Your task to perform on an android device: install app "Pluto TV - Live TV and Movies" Image 0: 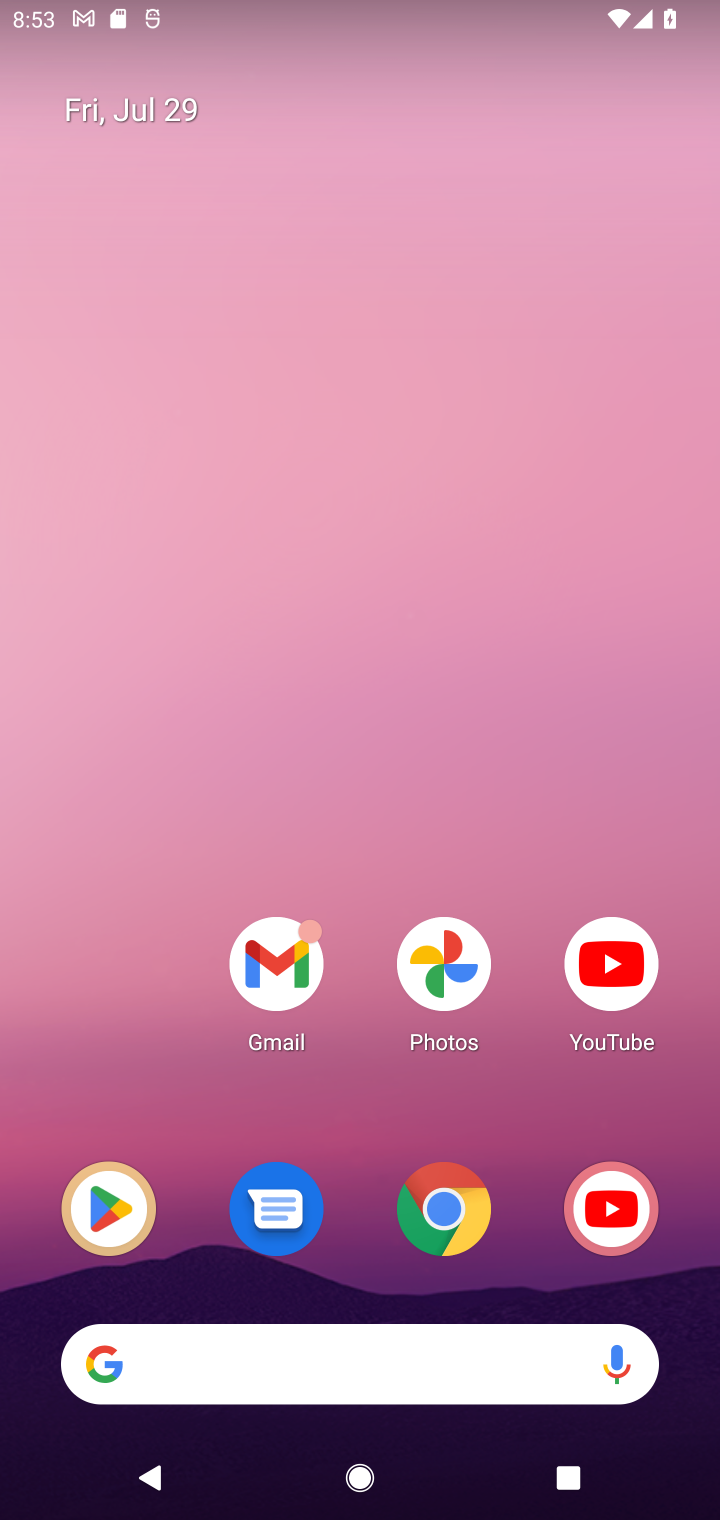
Step 0: drag from (213, 1347) to (419, 13)
Your task to perform on an android device: install app "Pluto TV - Live TV and Movies" Image 1: 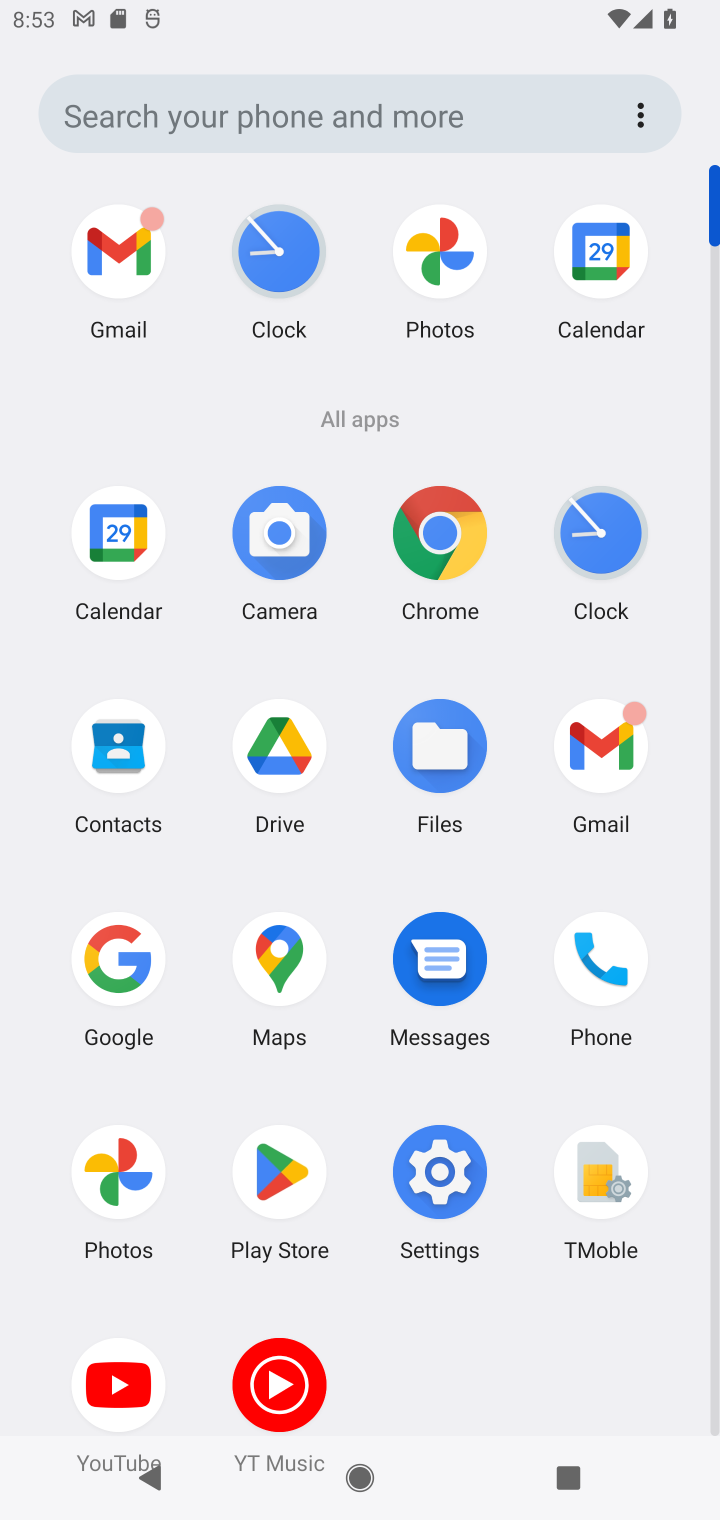
Step 1: click (286, 1179)
Your task to perform on an android device: install app "Pluto TV - Live TV and Movies" Image 2: 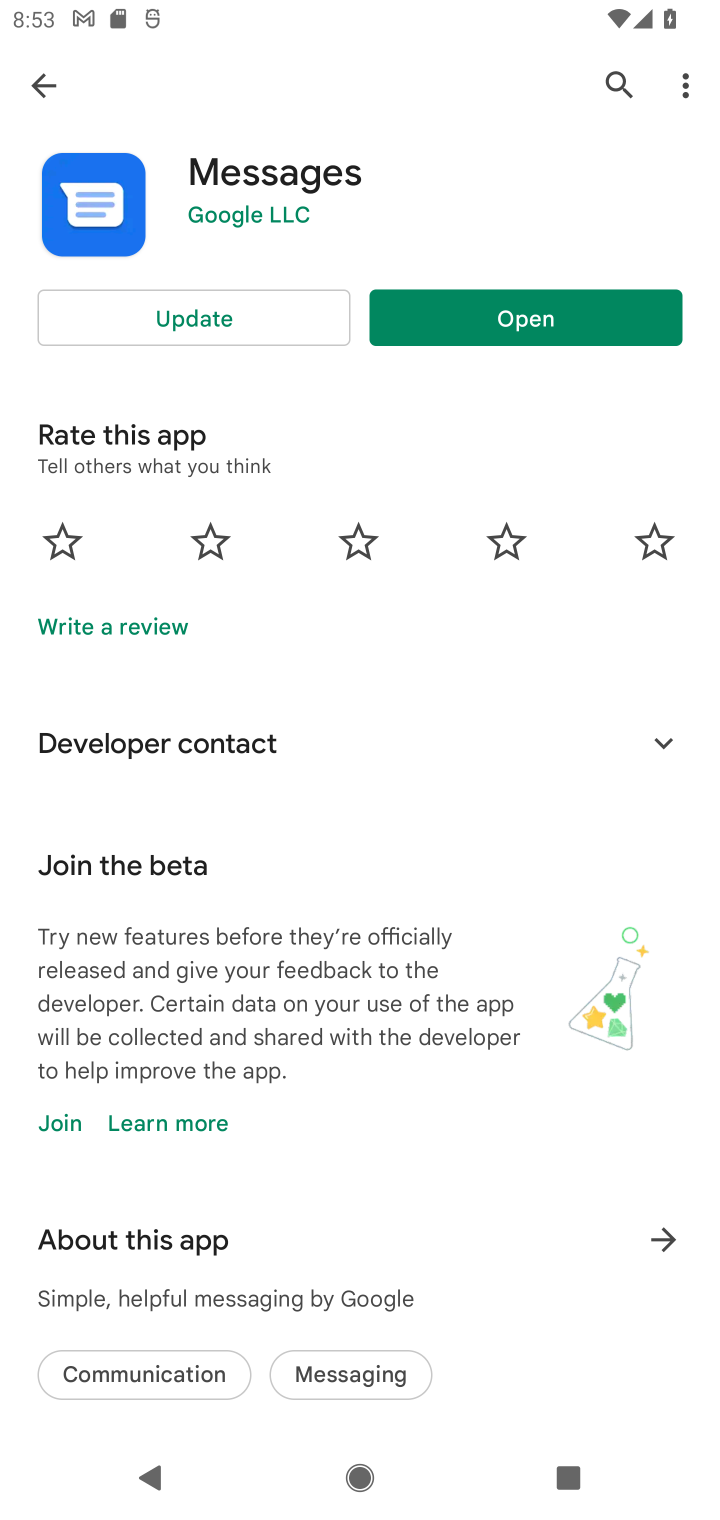
Step 2: click (617, 88)
Your task to perform on an android device: install app "Pluto TV - Live TV and Movies" Image 3: 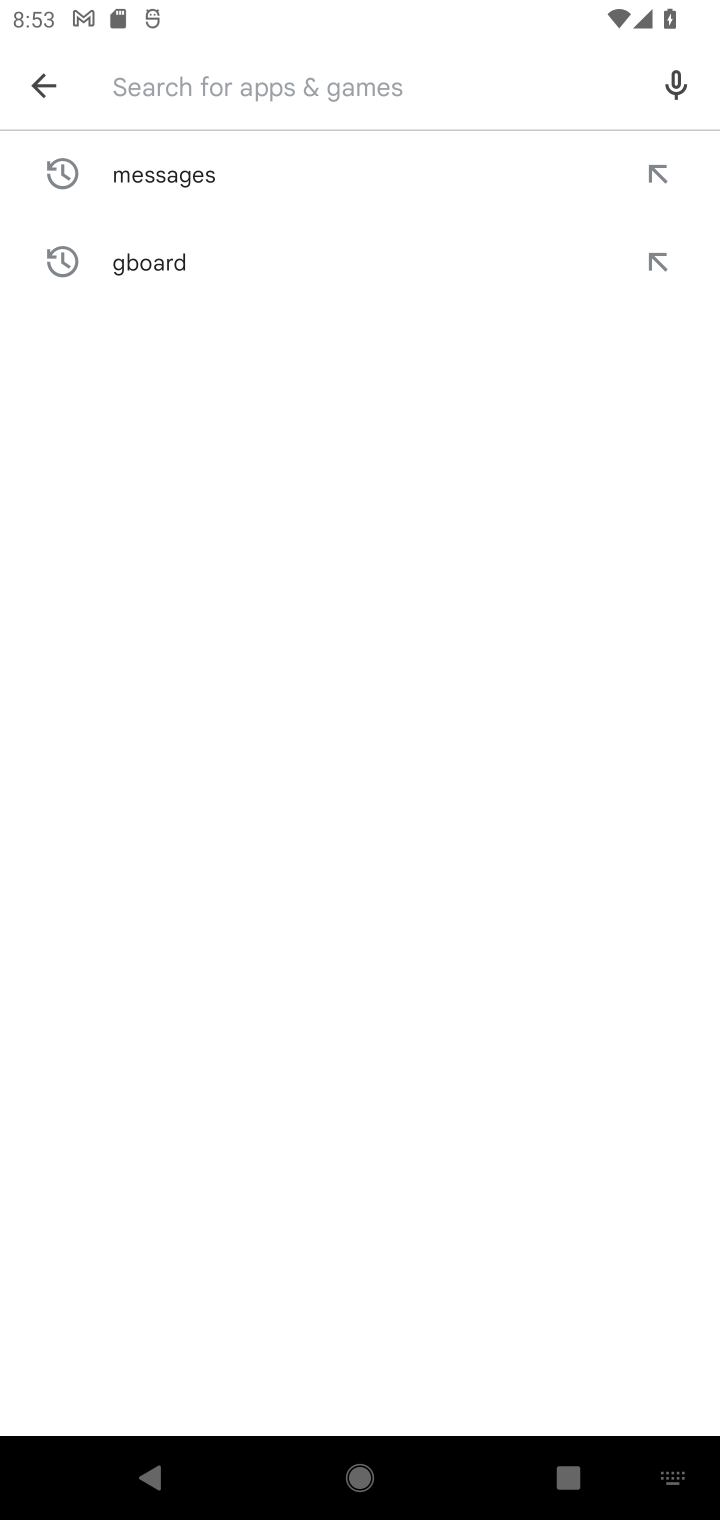
Step 3: click (283, 99)
Your task to perform on an android device: install app "Pluto TV - Live TV and Movies" Image 4: 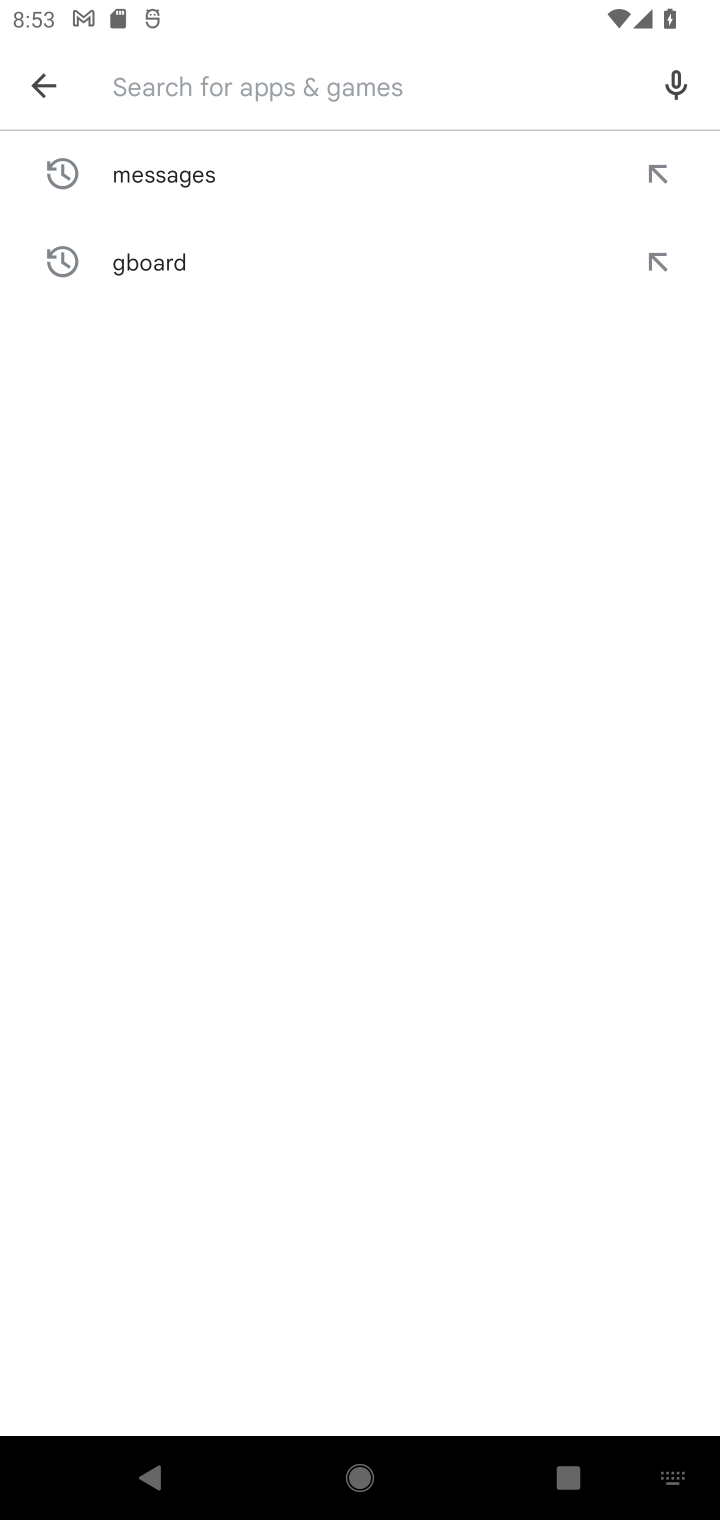
Step 4: click (145, 84)
Your task to perform on an android device: install app "Pluto TV - Live TV and Movies" Image 5: 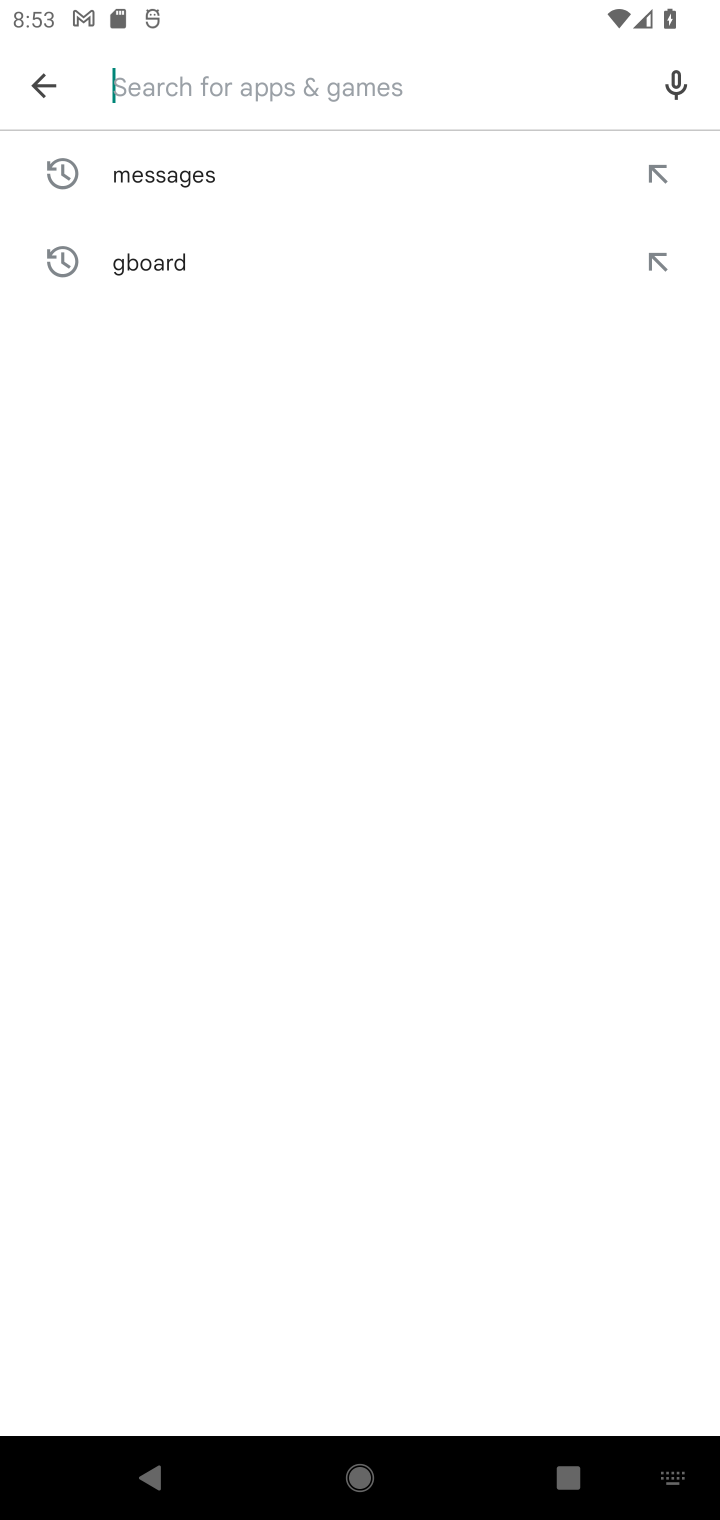
Step 5: type "Pluto TV - Live TV and Movies"
Your task to perform on an android device: install app "Pluto TV - Live TV and Movies" Image 6: 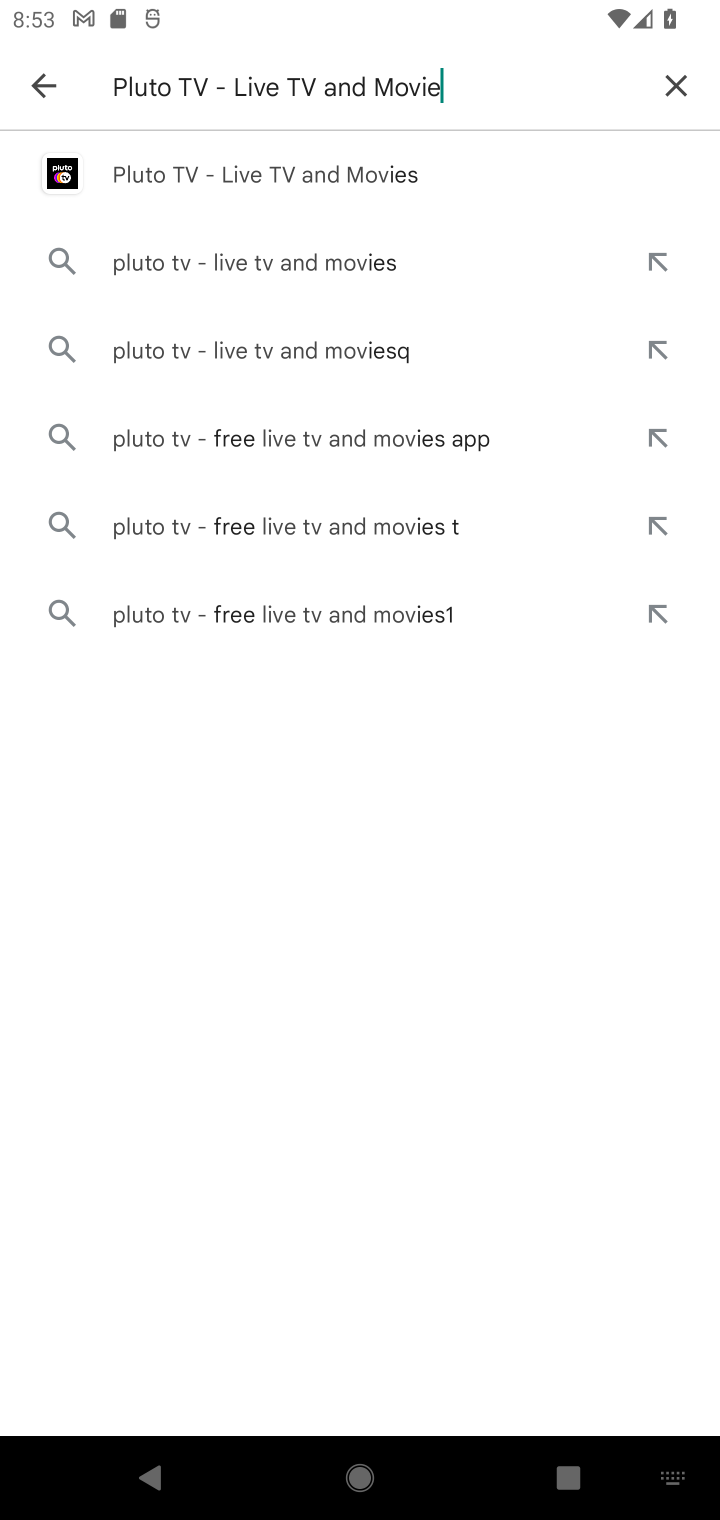
Step 6: type ""
Your task to perform on an android device: install app "Pluto TV - Live TV and Movies" Image 7: 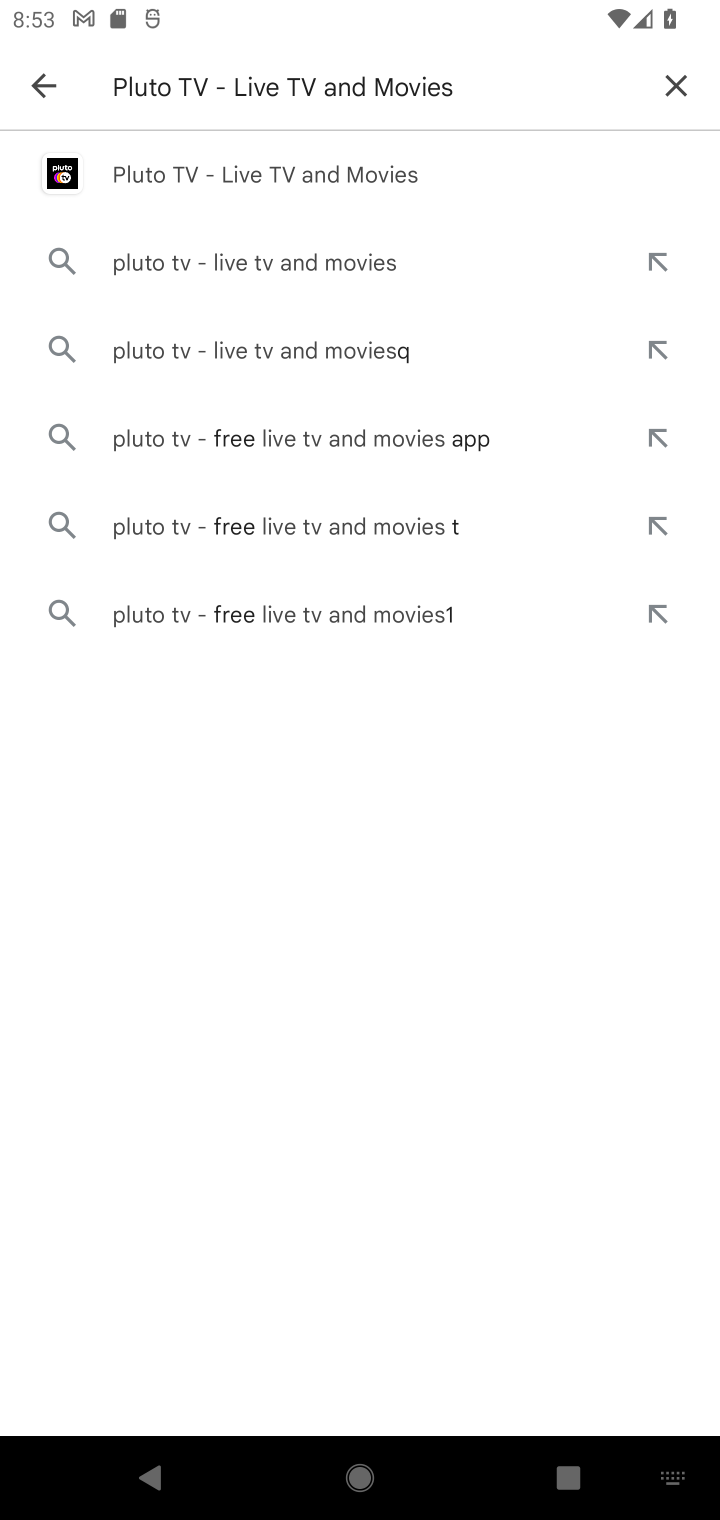
Step 7: click (343, 171)
Your task to perform on an android device: install app "Pluto TV - Live TV and Movies" Image 8: 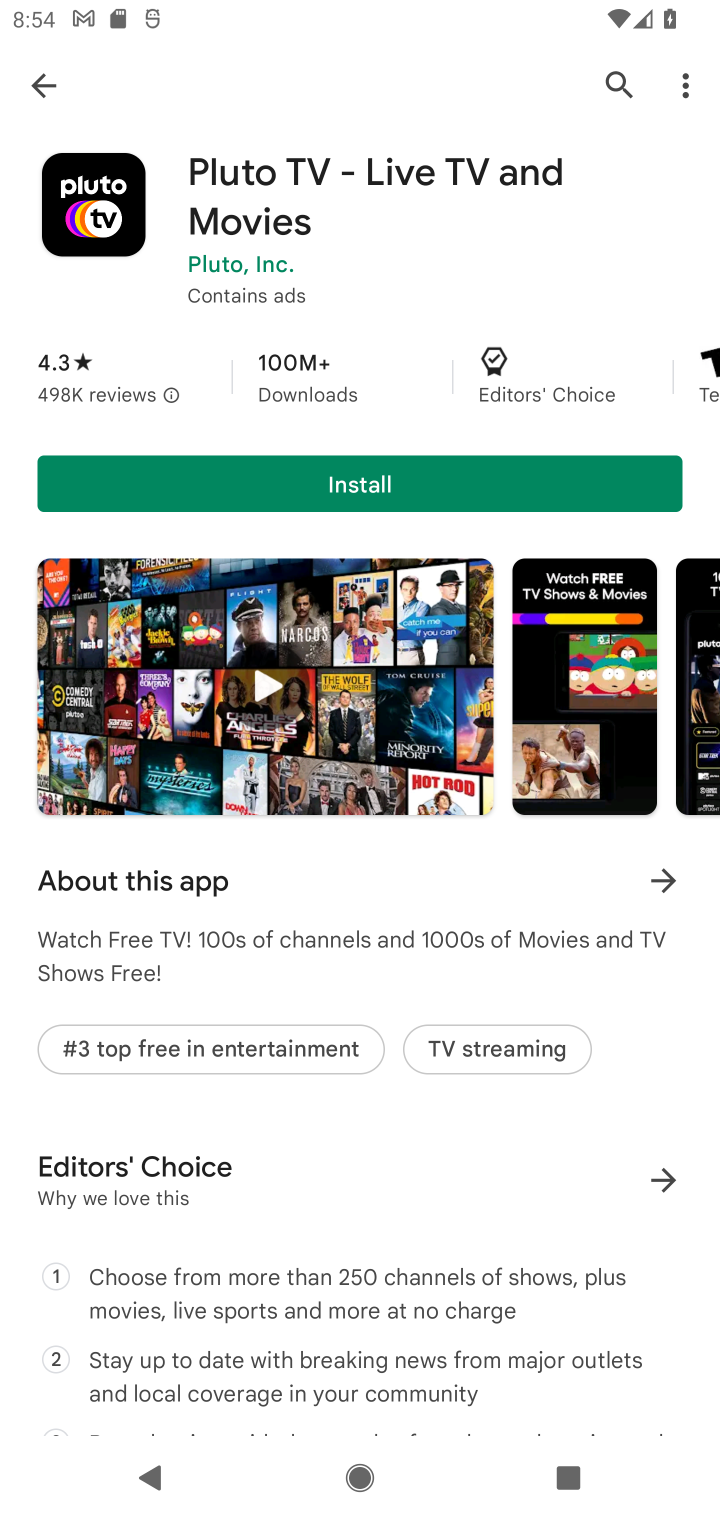
Step 8: click (363, 497)
Your task to perform on an android device: install app "Pluto TV - Live TV and Movies" Image 9: 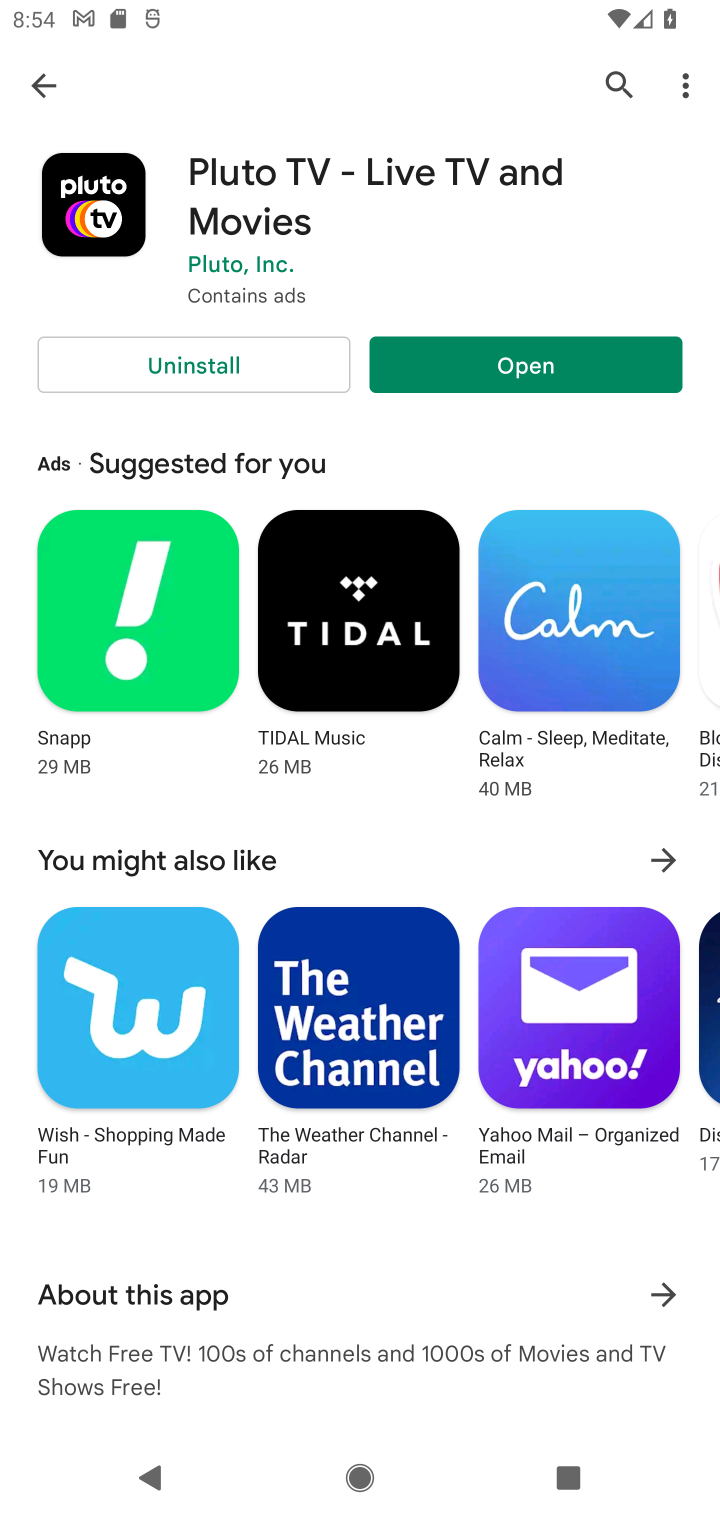
Step 9: task complete